Your task to perform on an android device: find which apps use the phone's location Image 0: 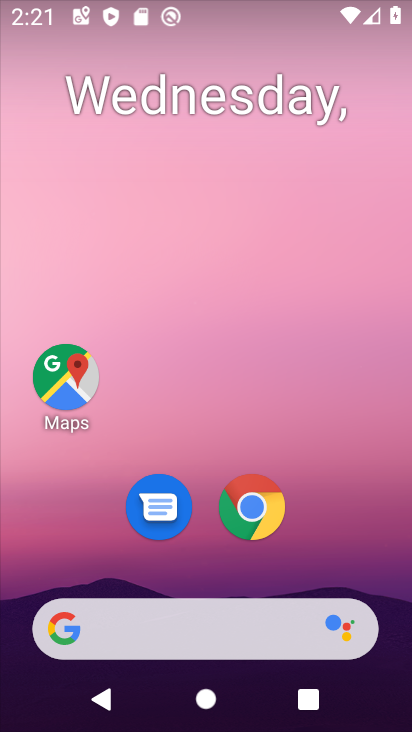
Step 0: drag from (351, 541) to (393, 102)
Your task to perform on an android device: find which apps use the phone's location Image 1: 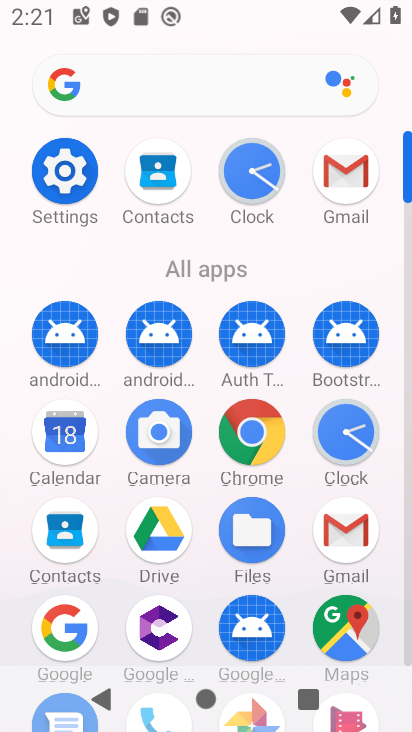
Step 1: click (56, 171)
Your task to perform on an android device: find which apps use the phone's location Image 2: 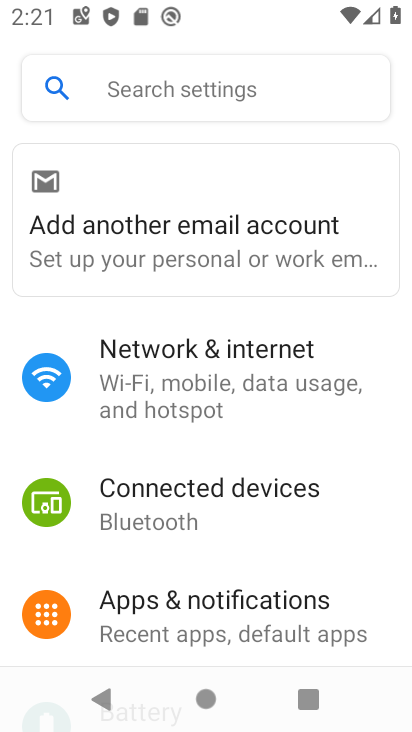
Step 2: drag from (308, 562) to (313, 153)
Your task to perform on an android device: find which apps use the phone's location Image 3: 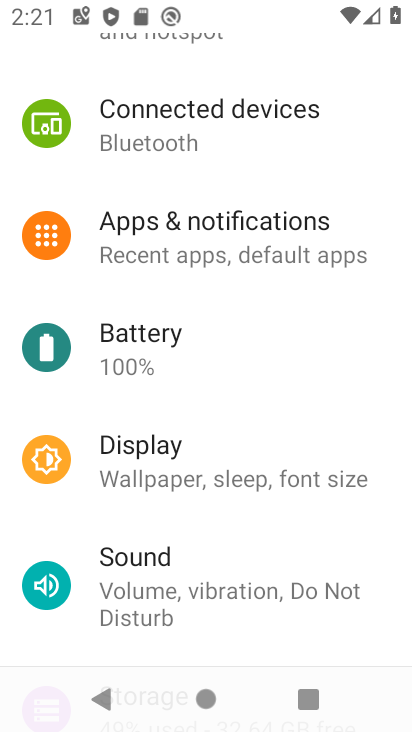
Step 3: drag from (205, 562) to (204, 182)
Your task to perform on an android device: find which apps use the phone's location Image 4: 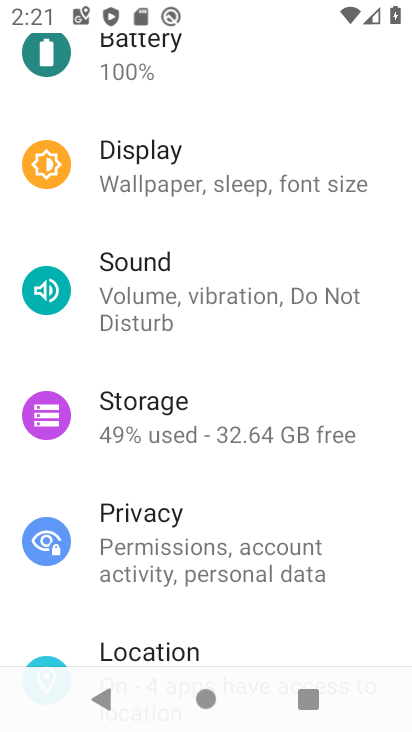
Step 4: drag from (187, 536) to (202, 198)
Your task to perform on an android device: find which apps use the phone's location Image 5: 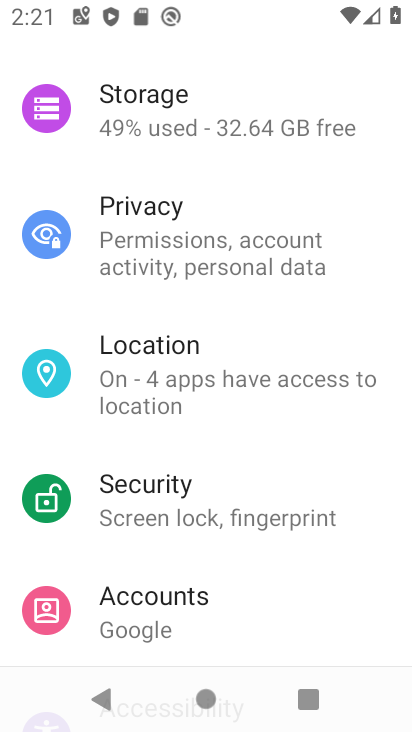
Step 5: click (203, 384)
Your task to perform on an android device: find which apps use the phone's location Image 6: 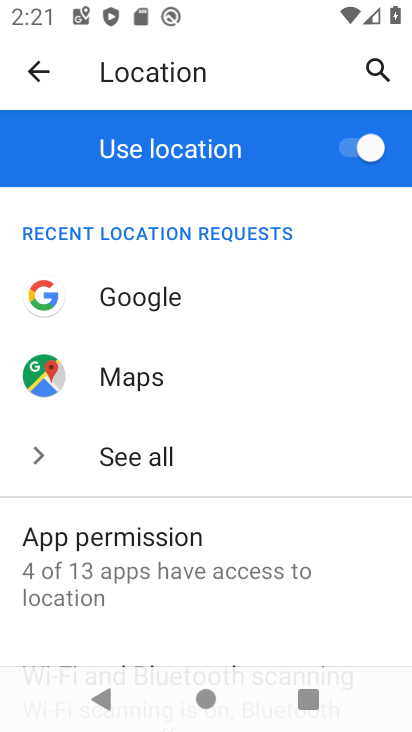
Step 6: drag from (274, 602) to (253, 160)
Your task to perform on an android device: find which apps use the phone's location Image 7: 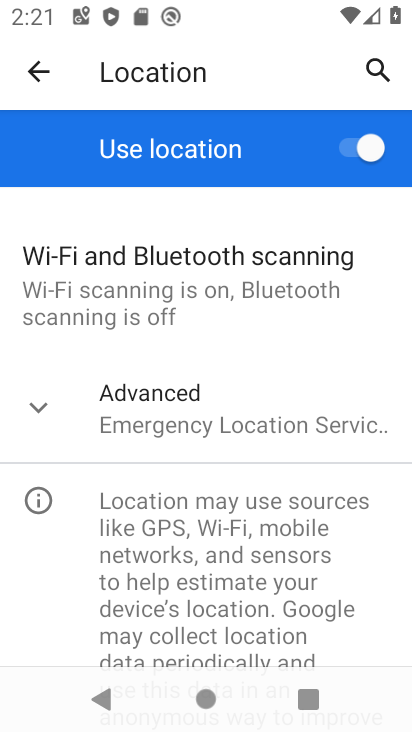
Step 7: click (187, 403)
Your task to perform on an android device: find which apps use the phone's location Image 8: 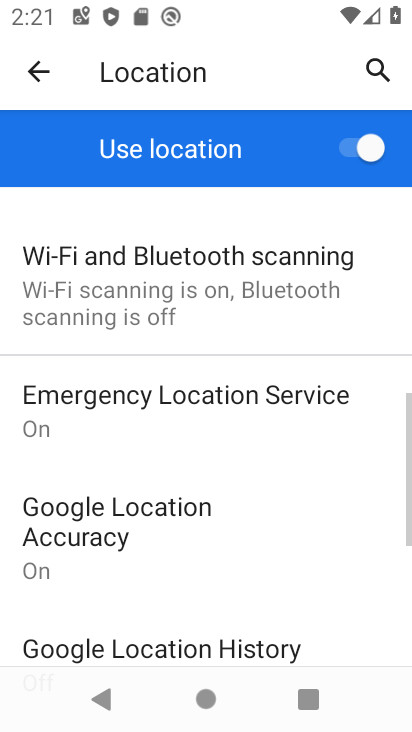
Step 8: task complete